Your task to perform on an android device: empty trash in the gmail app Image 0: 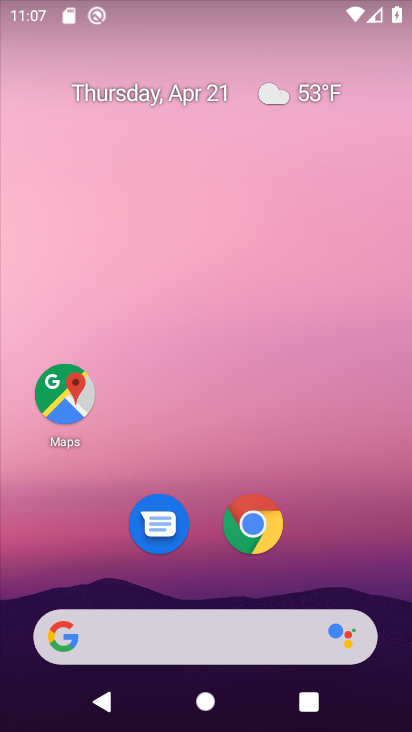
Step 0: drag from (359, 518) to (263, 152)
Your task to perform on an android device: empty trash in the gmail app Image 1: 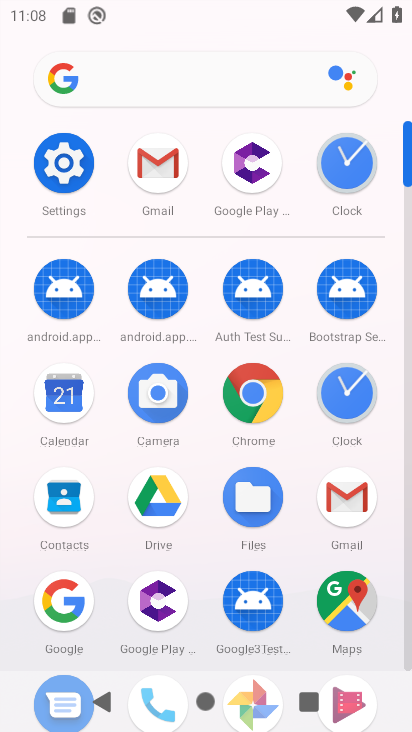
Step 1: click (158, 164)
Your task to perform on an android device: empty trash in the gmail app Image 2: 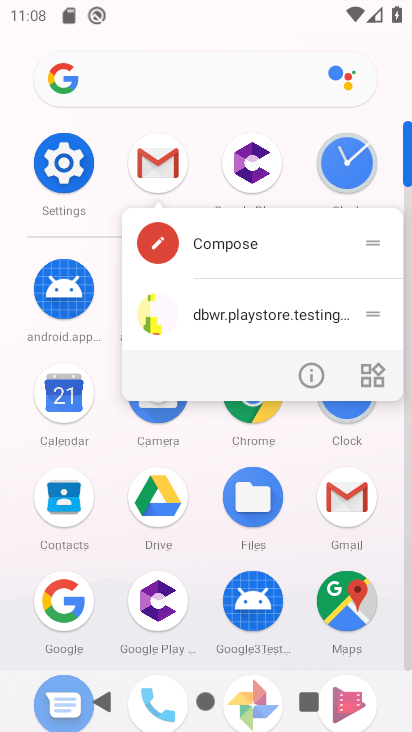
Step 2: click (158, 162)
Your task to perform on an android device: empty trash in the gmail app Image 3: 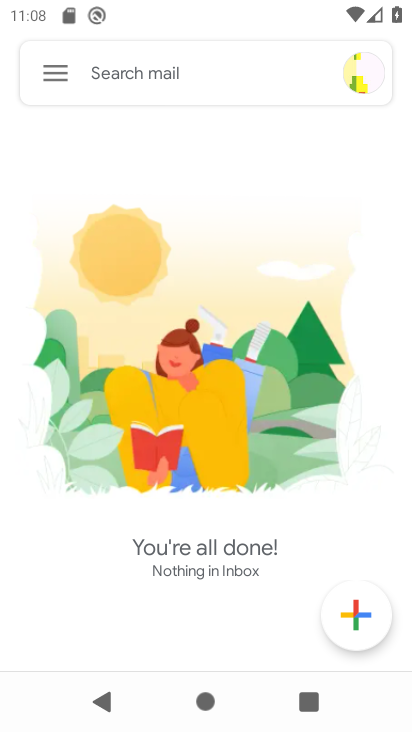
Step 3: click (48, 73)
Your task to perform on an android device: empty trash in the gmail app Image 4: 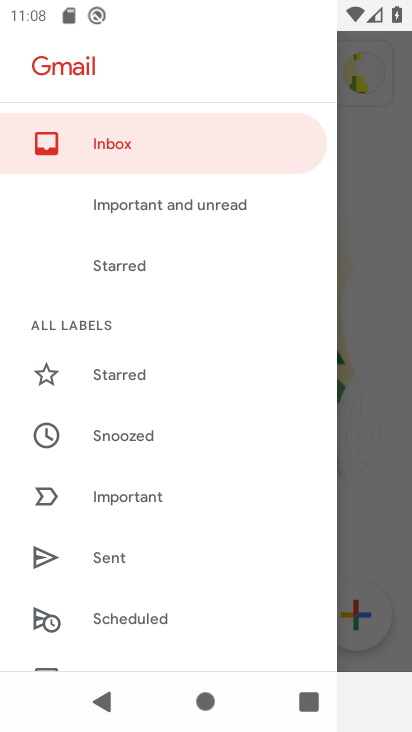
Step 4: drag from (169, 532) to (247, 141)
Your task to perform on an android device: empty trash in the gmail app Image 5: 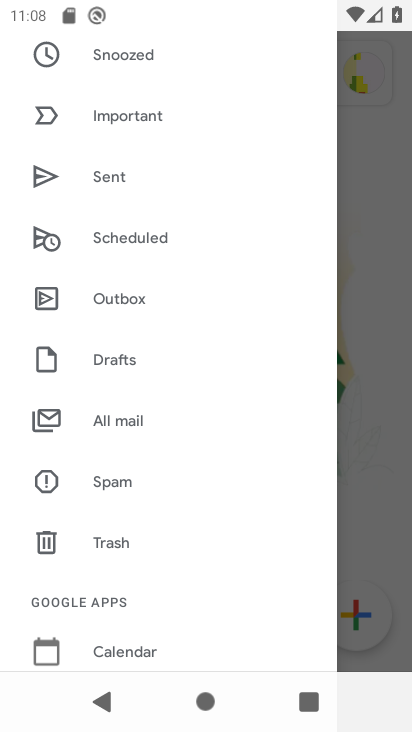
Step 5: click (139, 534)
Your task to perform on an android device: empty trash in the gmail app Image 6: 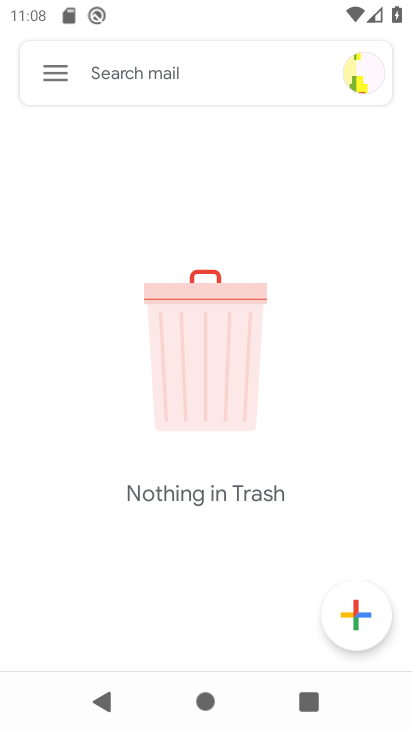
Step 6: task complete